Your task to perform on an android device: Do I have any events tomorrow? Image 0: 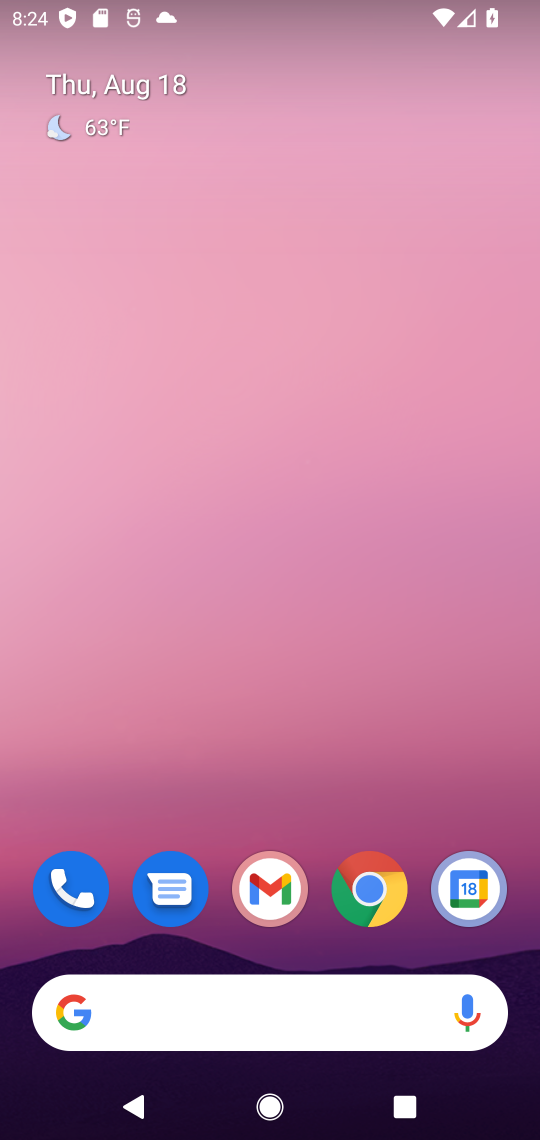
Step 0: press home button
Your task to perform on an android device: Do I have any events tomorrow? Image 1: 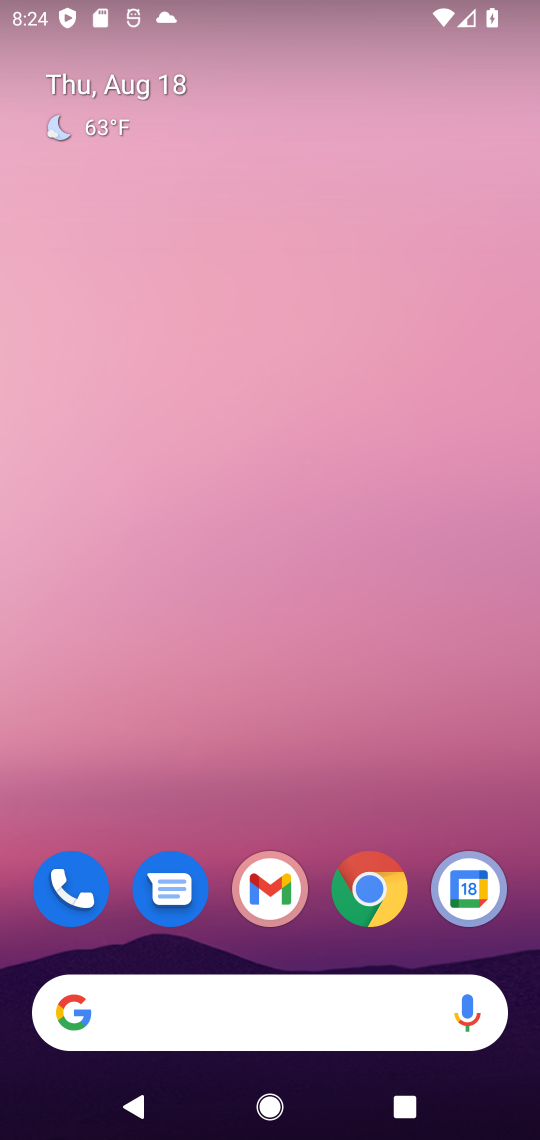
Step 1: drag from (332, 943) to (168, 43)
Your task to perform on an android device: Do I have any events tomorrow? Image 2: 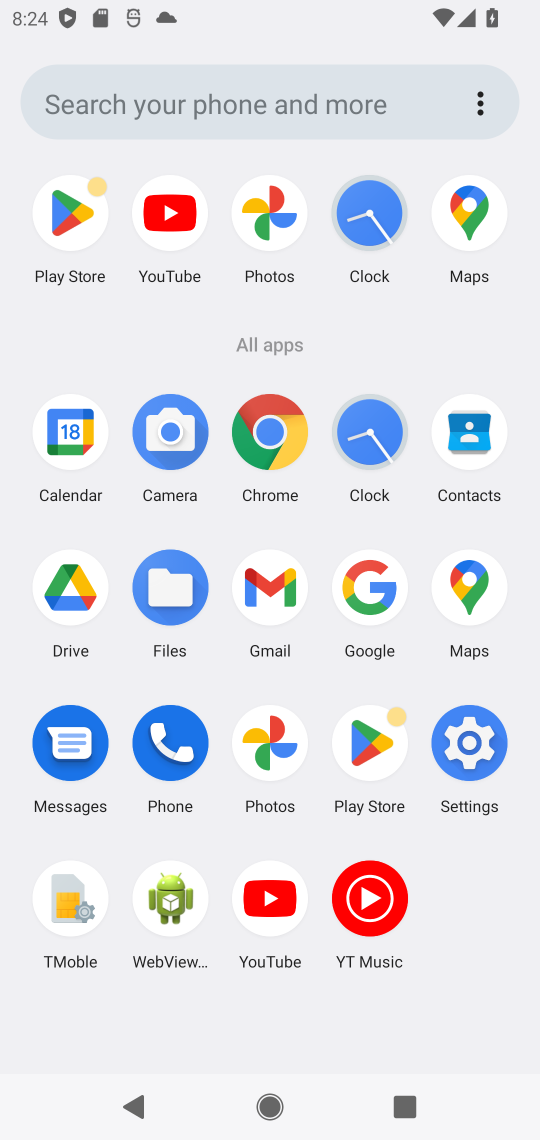
Step 2: click (85, 438)
Your task to perform on an android device: Do I have any events tomorrow? Image 3: 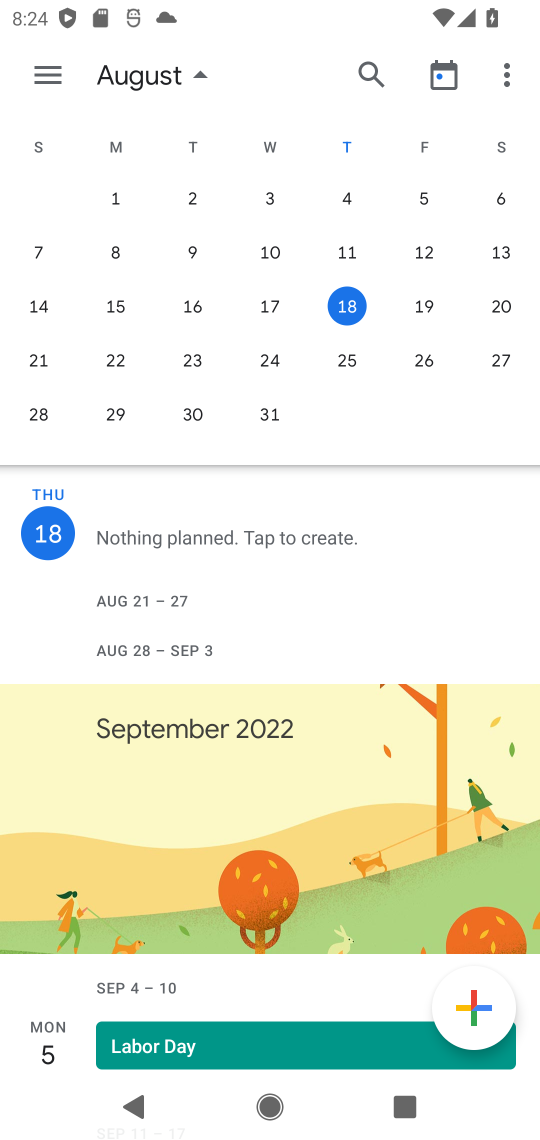
Step 3: click (433, 312)
Your task to perform on an android device: Do I have any events tomorrow? Image 4: 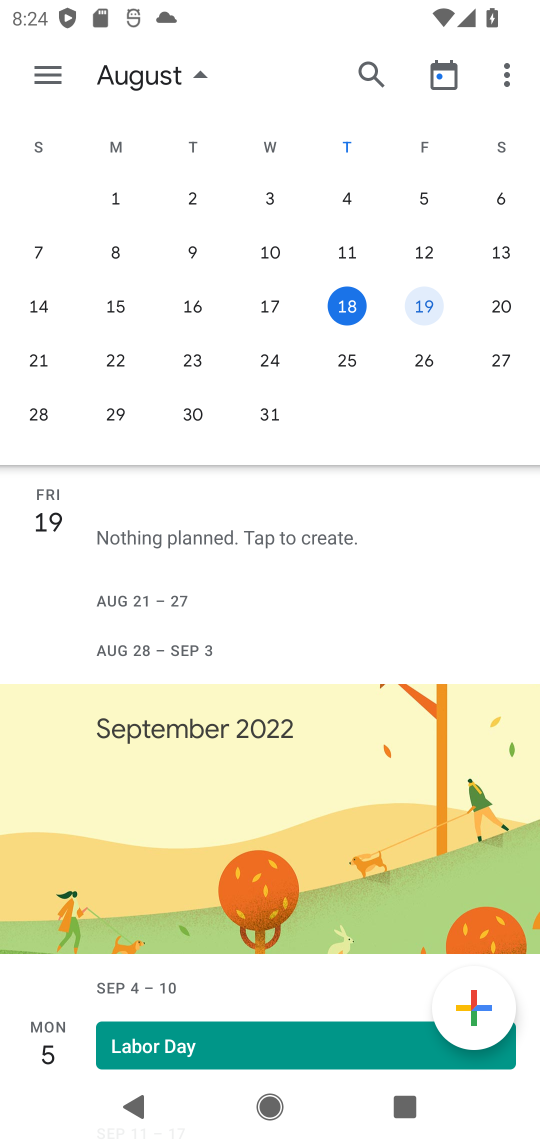
Step 4: task complete